Your task to perform on an android device: What's the weather going to be tomorrow? Image 0: 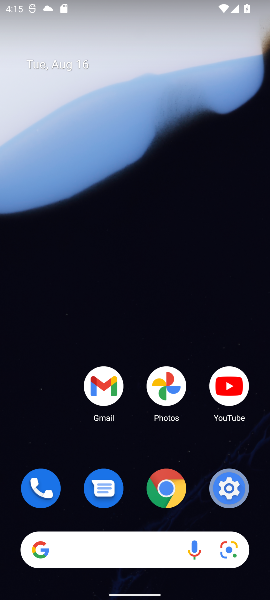
Step 0: task complete